Your task to perform on an android device: set an alarm Image 0: 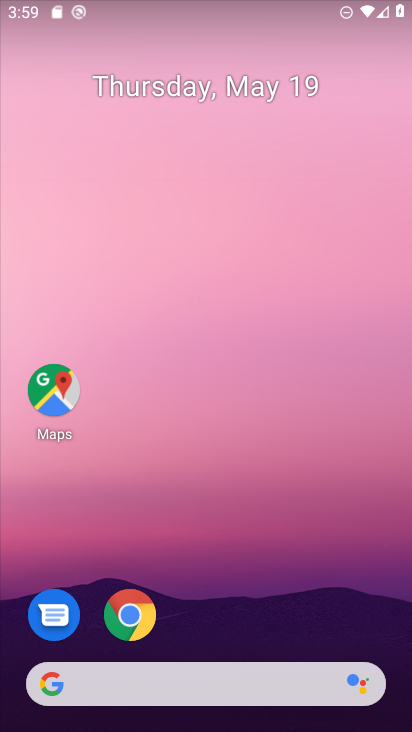
Step 0: click (212, 106)
Your task to perform on an android device: set an alarm Image 1: 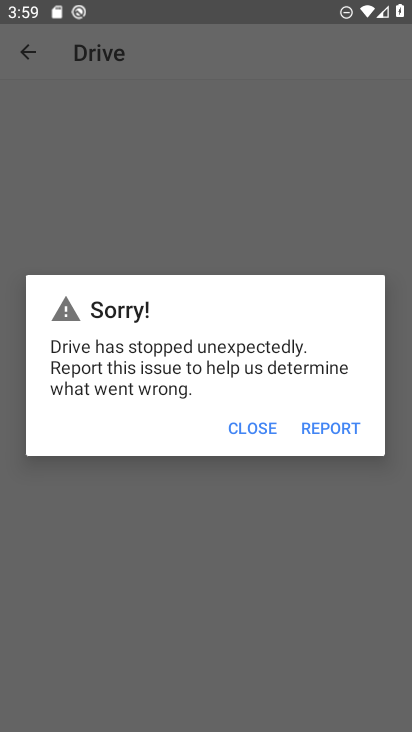
Step 1: press home button
Your task to perform on an android device: set an alarm Image 2: 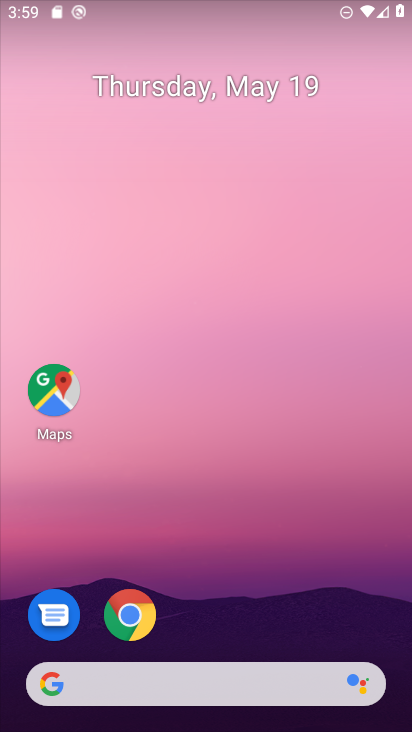
Step 2: drag from (242, 583) to (268, 51)
Your task to perform on an android device: set an alarm Image 3: 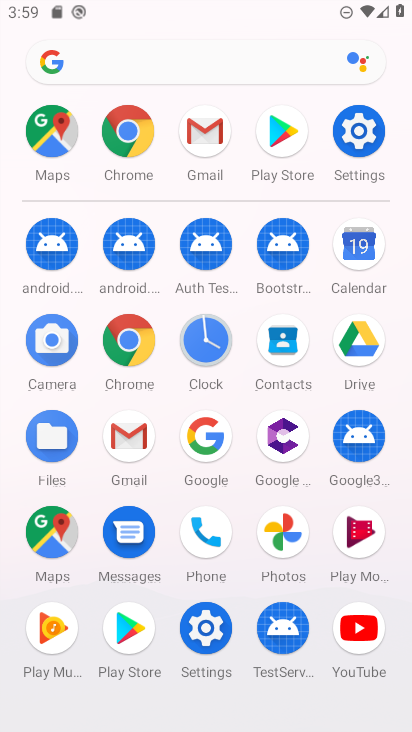
Step 3: click (214, 357)
Your task to perform on an android device: set an alarm Image 4: 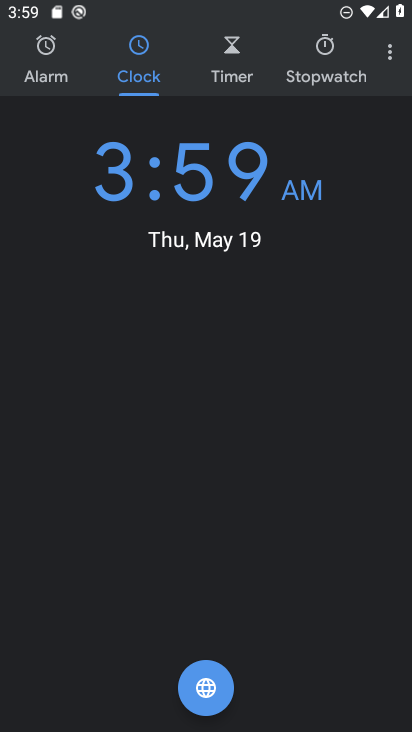
Step 4: click (43, 57)
Your task to perform on an android device: set an alarm Image 5: 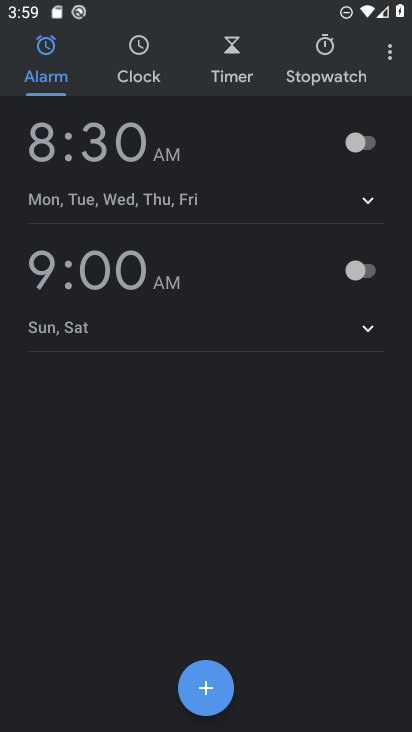
Step 5: click (208, 709)
Your task to perform on an android device: set an alarm Image 6: 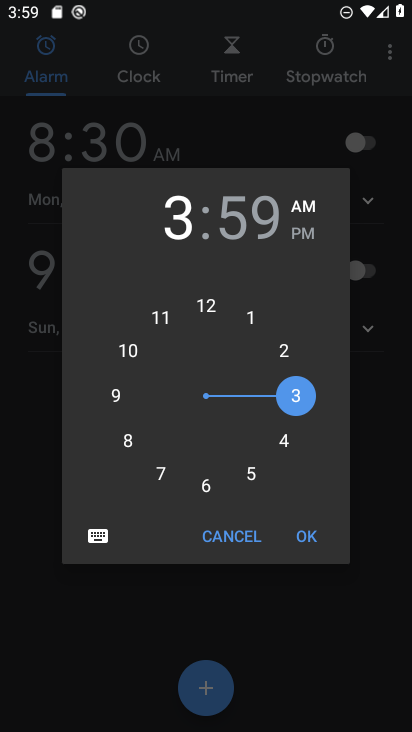
Step 6: click (309, 543)
Your task to perform on an android device: set an alarm Image 7: 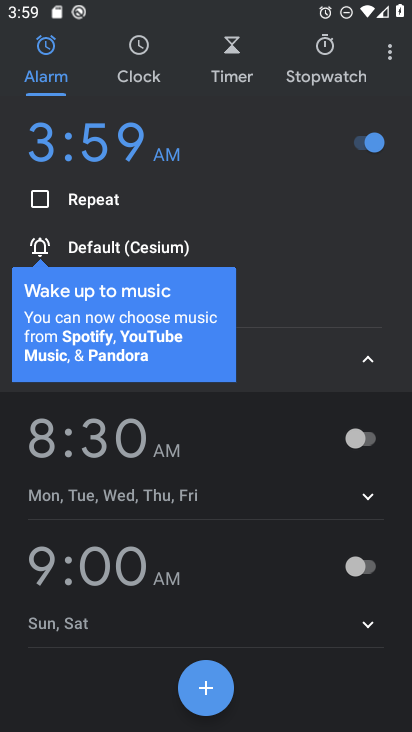
Step 7: task complete